Your task to perform on an android device: Search for vegetarian restaurants on Maps Image 0: 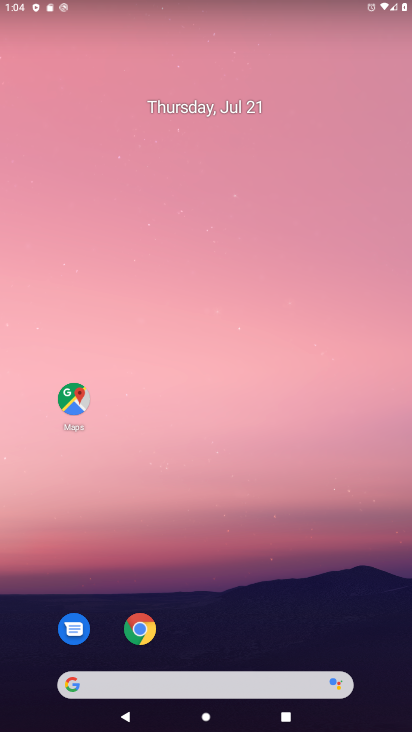
Step 0: drag from (36, 703) to (223, 369)
Your task to perform on an android device: Search for vegetarian restaurants on Maps Image 1: 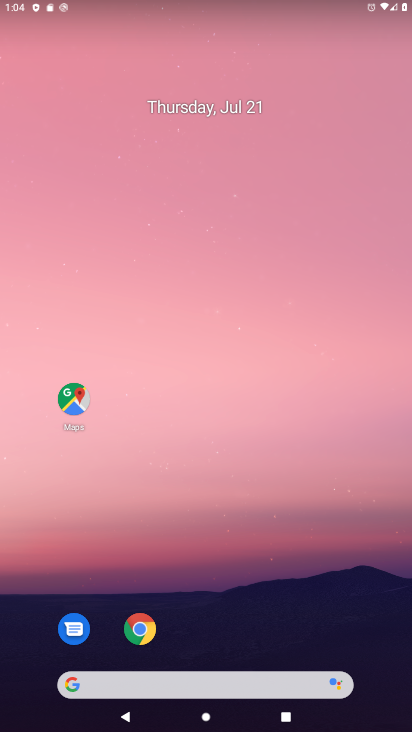
Step 1: click (79, 393)
Your task to perform on an android device: Search for vegetarian restaurants on Maps Image 2: 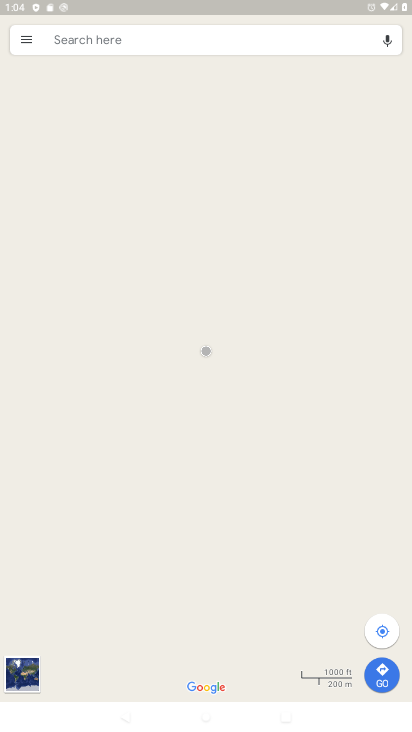
Step 2: click (78, 42)
Your task to perform on an android device: Search for vegetarian restaurants on Maps Image 3: 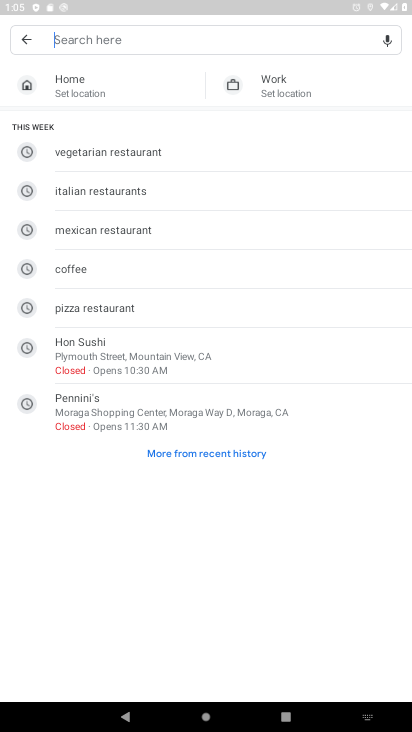
Step 3: click (104, 158)
Your task to perform on an android device: Search for vegetarian restaurants on Maps Image 4: 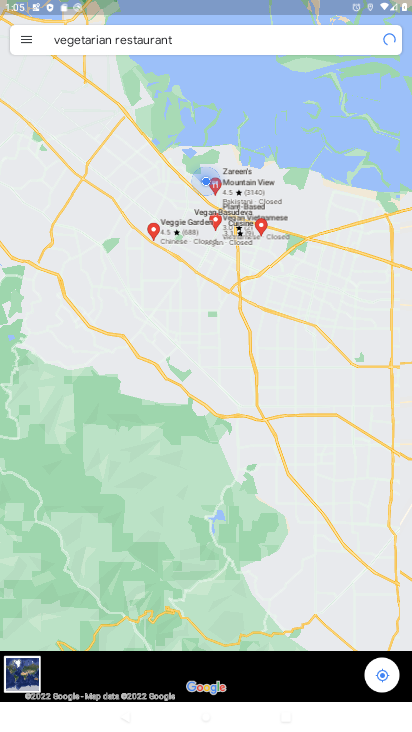
Step 4: task complete